Your task to perform on an android device: make emails show in primary in the gmail app Image 0: 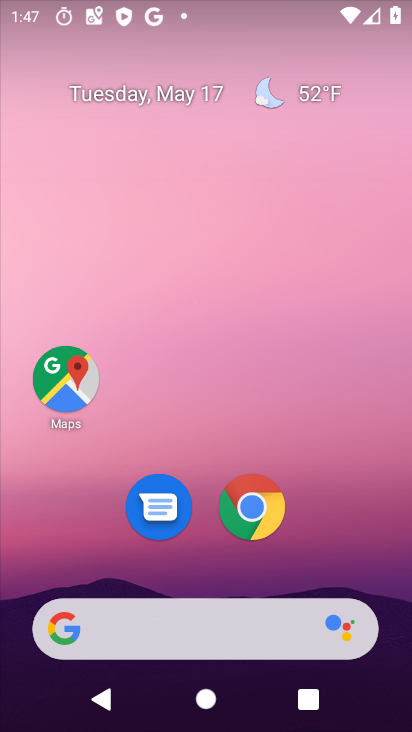
Step 0: drag from (205, 529) to (229, 121)
Your task to perform on an android device: make emails show in primary in the gmail app Image 1: 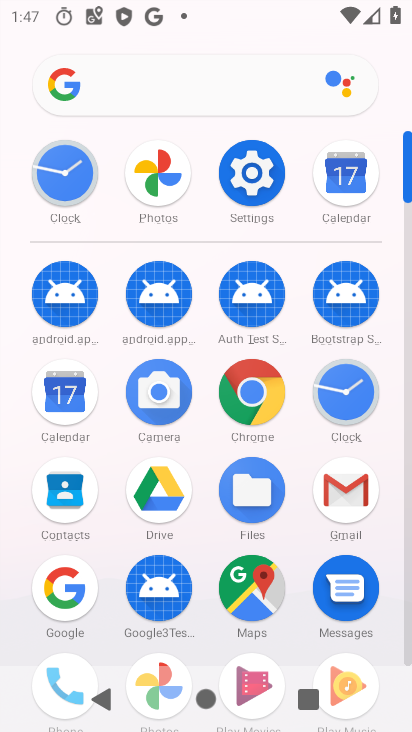
Step 1: click (339, 497)
Your task to perform on an android device: make emails show in primary in the gmail app Image 2: 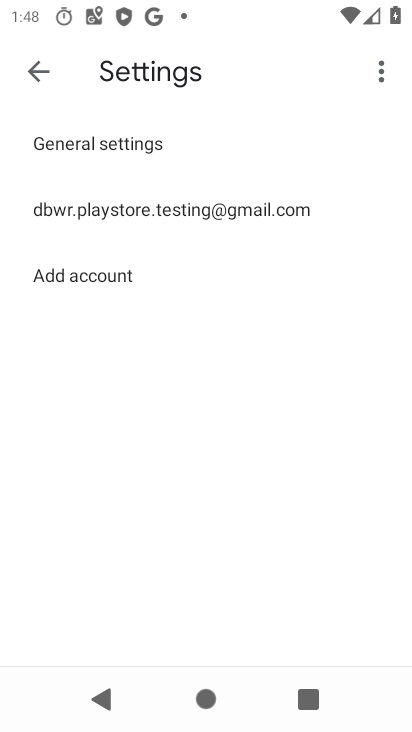
Step 2: click (110, 209)
Your task to perform on an android device: make emails show in primary in the gmail app Image 3: 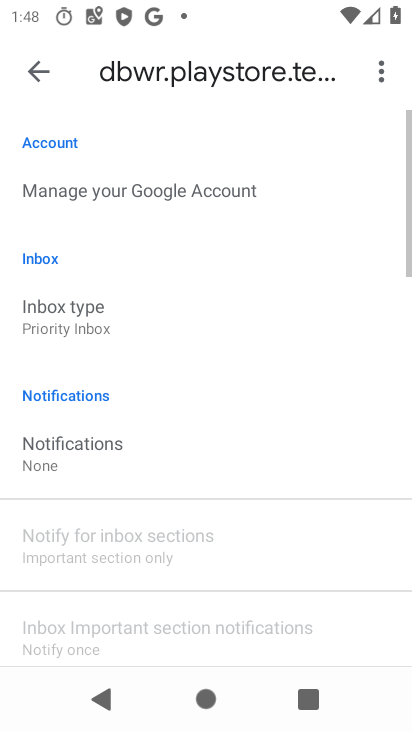
Step 3: click (109, 328)
Your task to perform on an android device: make emails show in primary in the gmail app Image 4: 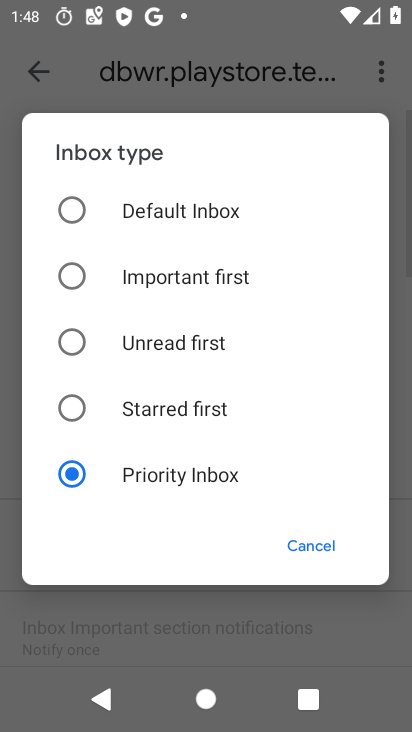
Step 4: click (66, 217)
Your task to perform on an android device: make emails show in primary in the gmail app Image 5: 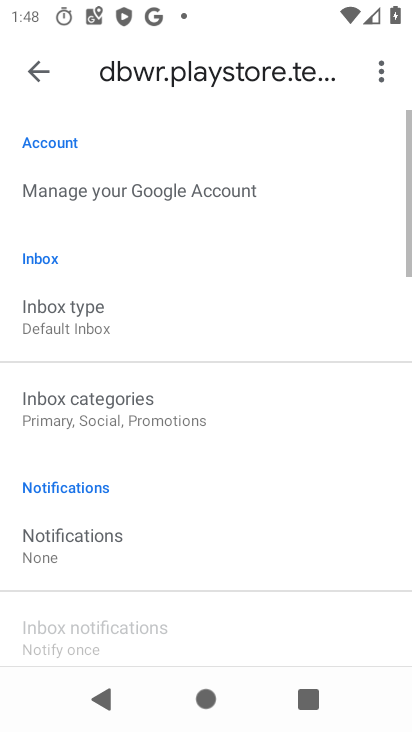
Step 5: click (123, 414)
Your task to perform on an android device: make emails show in primary in the gmail app Image 6: 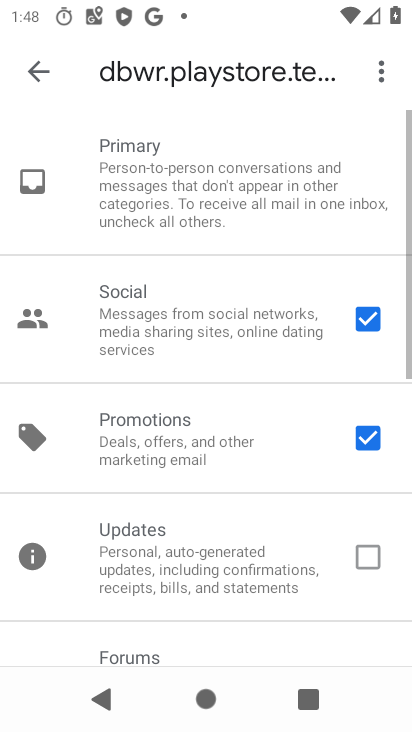
Step 6: click (354, 438)
Your task to perform on an android device: make emails show in primary in the gmail app Image 7: 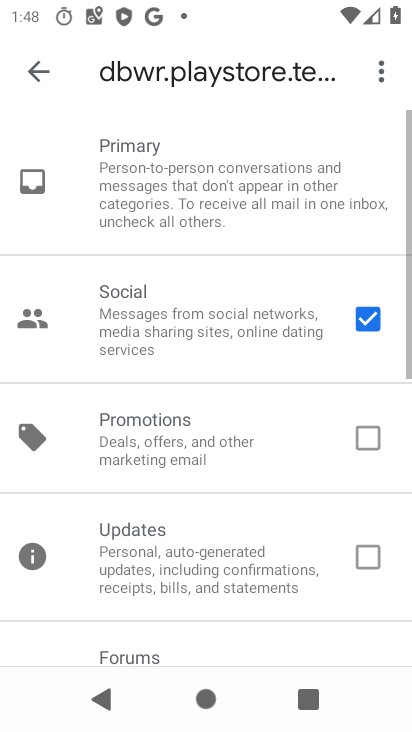
Step 7: click (361, 317)
Your task to perform on an android device: make emails show in primary in the gmail app Image 8: 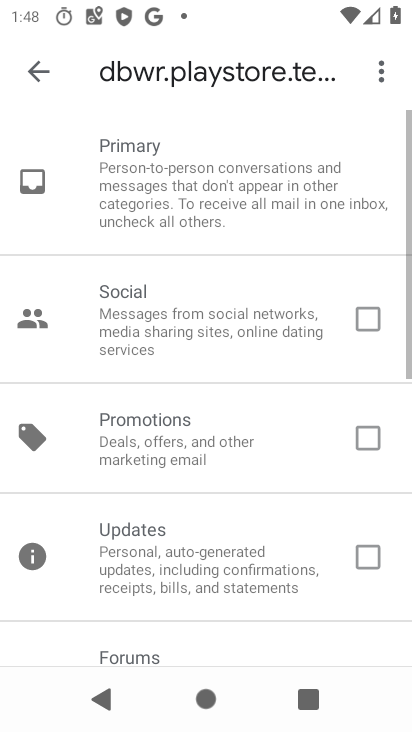
Step 8: task complete